Your task to perform on an android device: Go to calendar. Show me events next week Image 0: 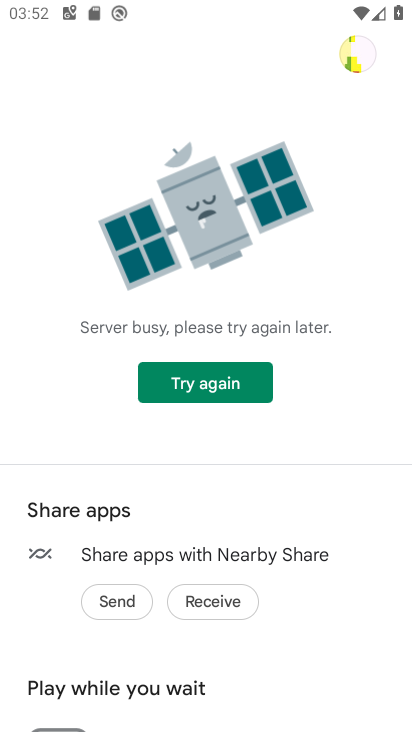
Step 0: press home button
Your task to perform on an android device: Go to calendar. Show me events next week Image 1: 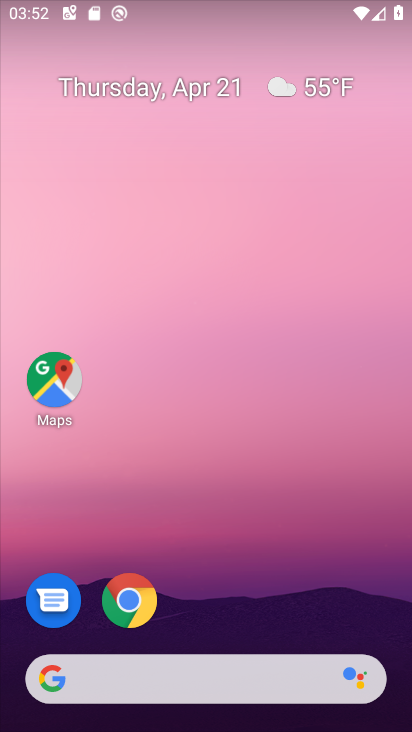
Step 1: drag from (287, 616) to (293, 80)
Your task to perform on an android device: Go to calendar. Show me events next week Image 2: 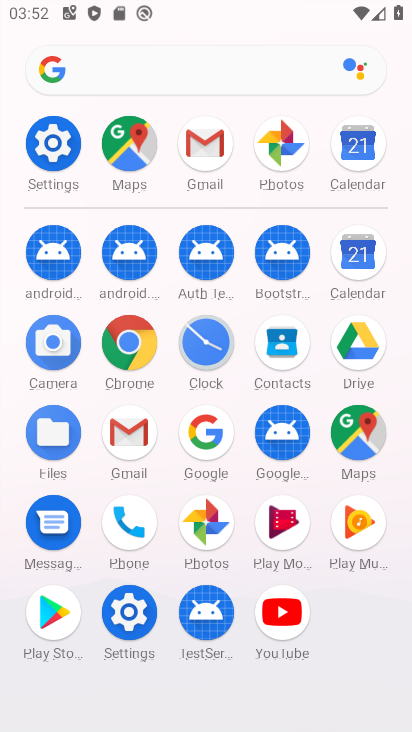
Step 2: click (353, 254)
Your task to perform on an android device: Go to calendar. Show me events next week Image 3: 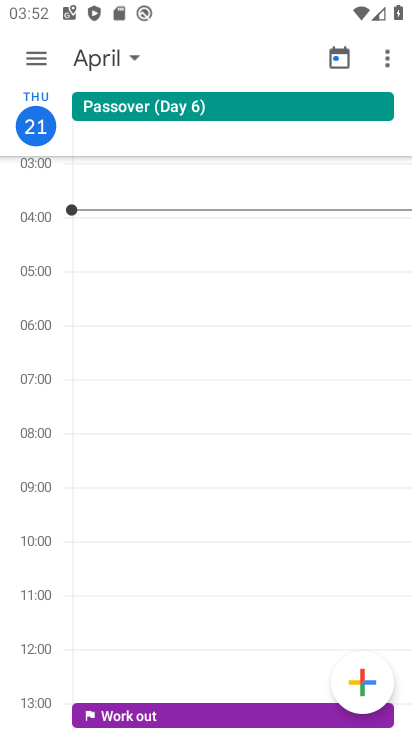
Step 3: click (80, 67)
Your task to perform on an android device: Go to calendar. Show me events next week Image 4: 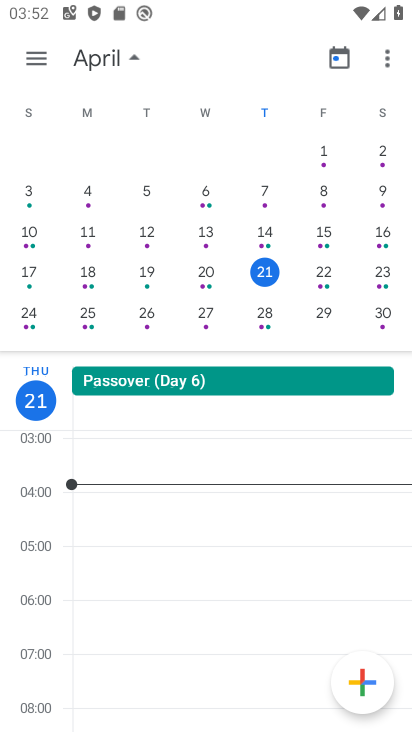
Step 4: click (40, 321)
Your task to perform on an android device: Go to calendar. Show me events next week Image 5: 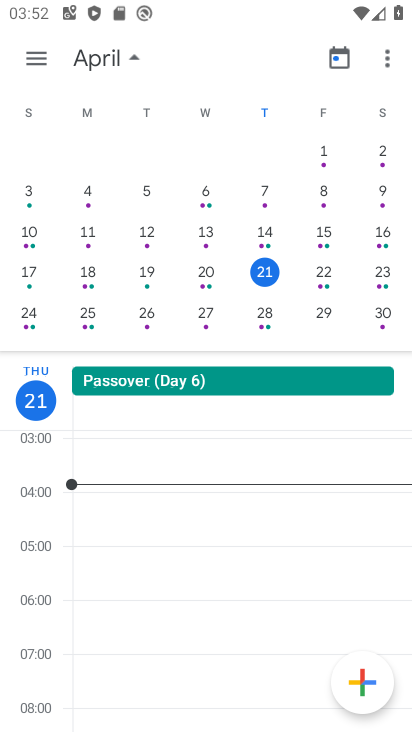
Step 5: click (34, 318)
Your task to perform on an android device: Go to calendar. Show me events next week Image 6: 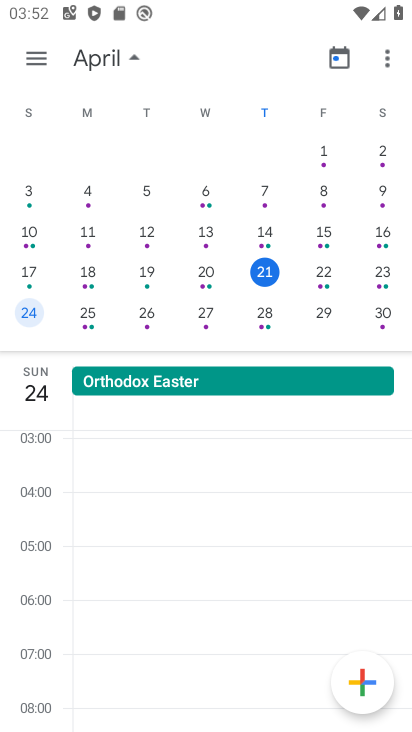
Step 6: click (86, 321)
Your task to perform on an android device: Go to calendar. Show me events next week Image 7: 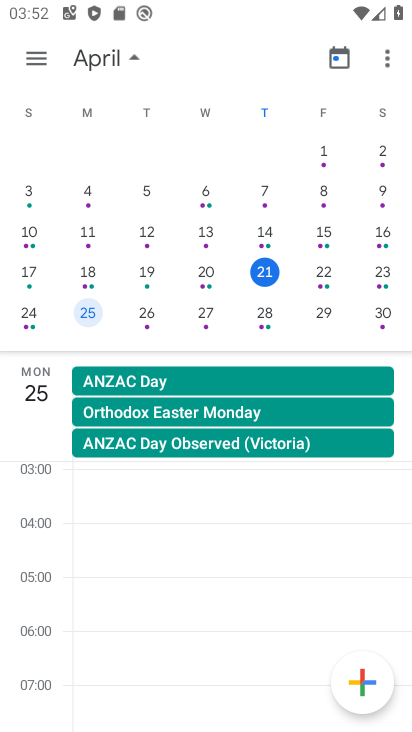
Step 7: click (149, 321)
Your task to perform on an android device: Go to calendar. Show me events next week Image 8: 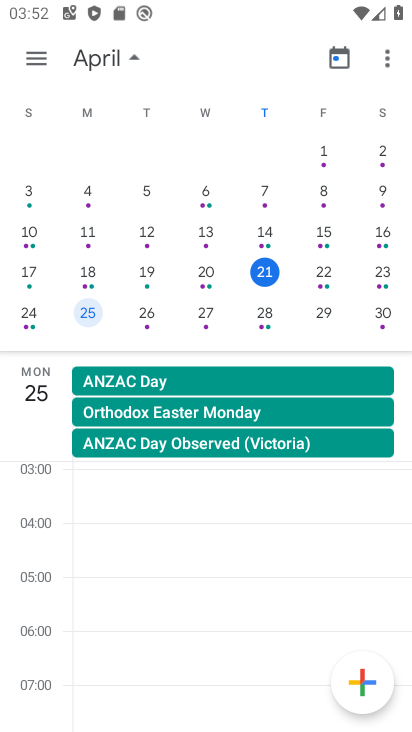
Step 8: click (149, 322)
Your task to perform on an android device: Go to calendar. Show me events next week Image 9: 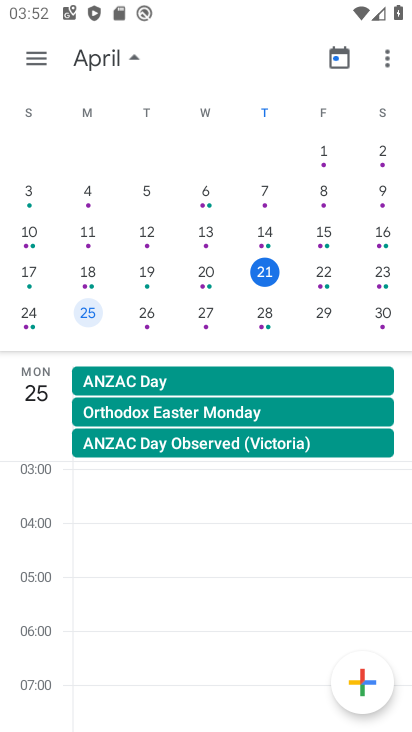
Step 9: click (145, 314)
Your task to perform on an android device: Go to calendar. Show me events next week Image 10: 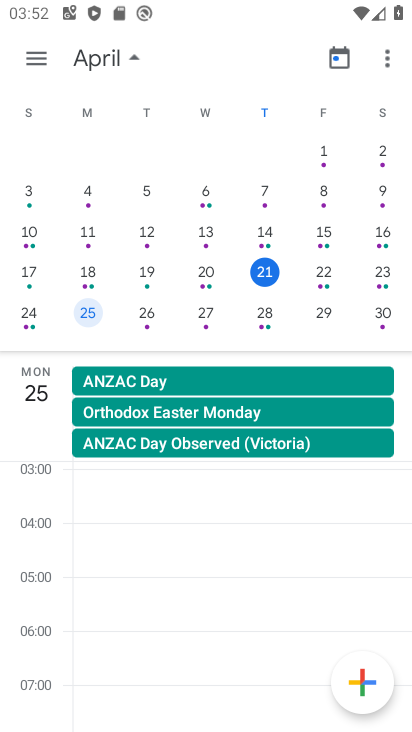
Step 10: click (150, 319)
Your task to perform on an android device: Go to calendar. Show me events next week Image 11: 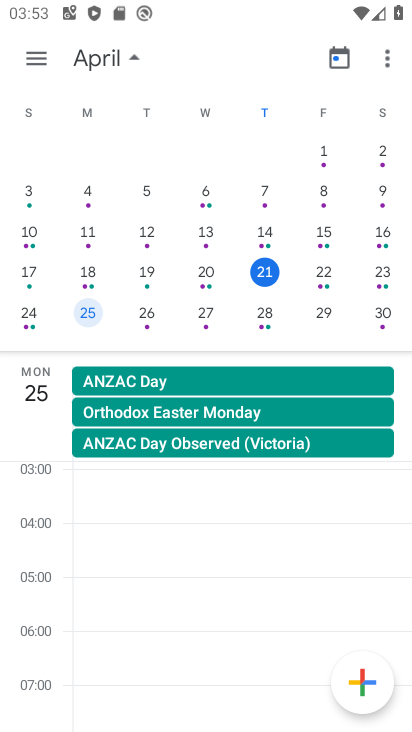
Step 11: click (154, 331)
Your task to perform on an android device: Go to calendar. Show me events next week Image 12: 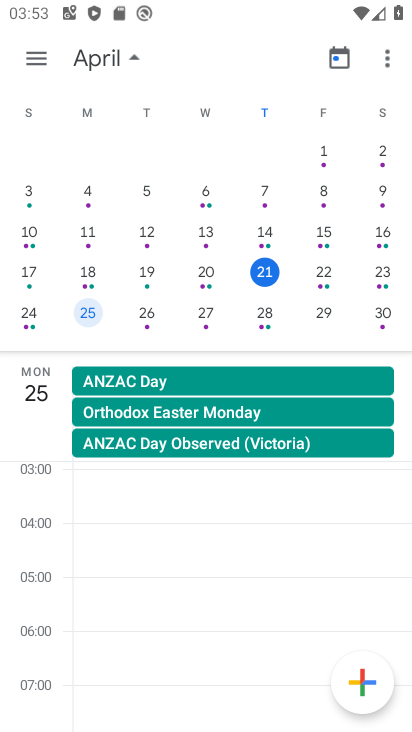
Step 12: click (151, 309)
Your task to perform on an android device: Go to calendar. Show me events next week Image 13: 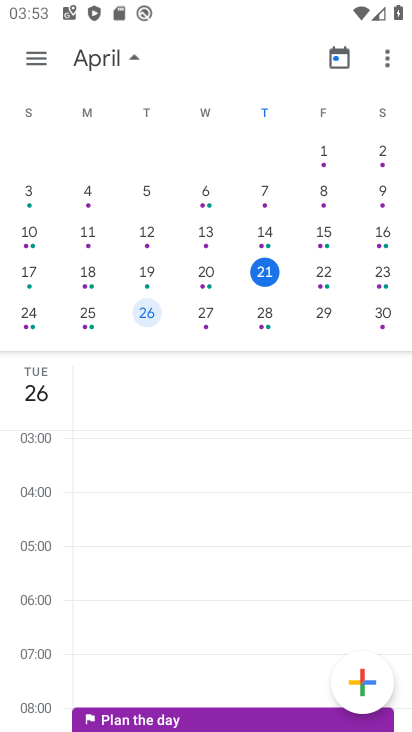
Step 13: click (210, 318)
Your task to perform on an android device: Go to calendar. Show me events next week Image 14: 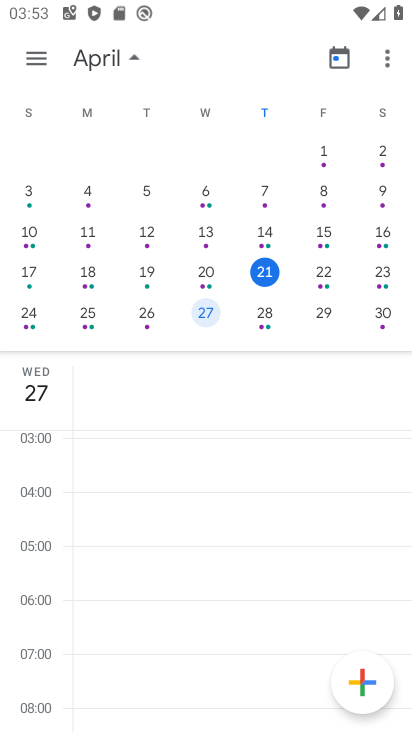
Step 14: click (260, 323)
Your task to perform on an android device: Go to calendar. Show me events next week Image 15: 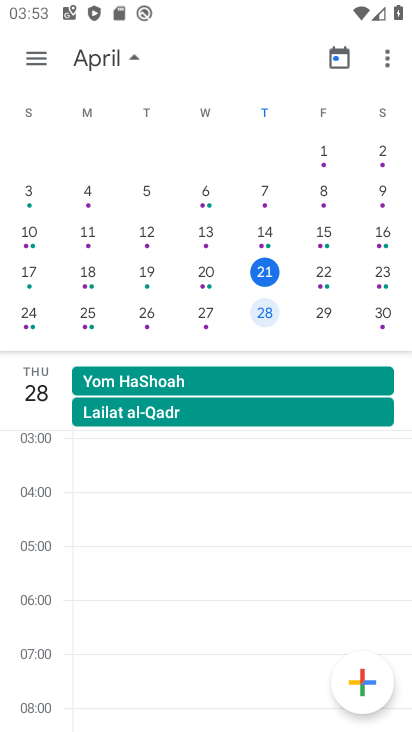
Step 15: click (326, 318)
Your task to perform on an android device: Go to calendar. Show me events next week Image 16: 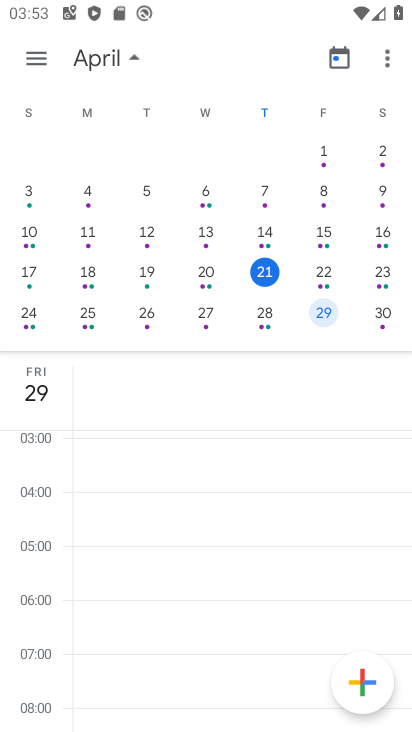
Step 16: click (394, 317)
Your task to perform on an android device: Go to calendar. Show me events next week Image 17: 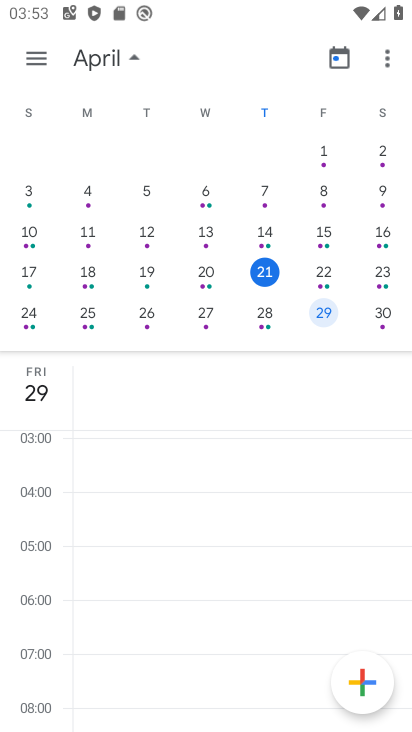
Step 17: click (385, 310)
Your task to perform on an android device: Go to calendar. Show me events next week Image 18: 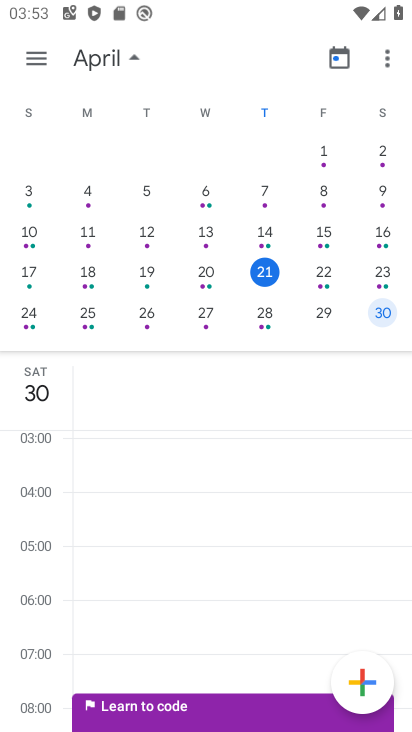
Step 18: task complete